Your task to perform on an android device: star an email in the gmail app Image 0: 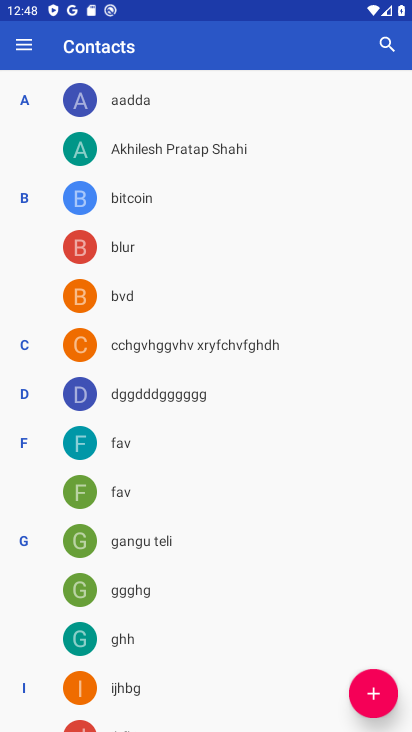
Step 0: press home button
Your task to perform on an android device: star an email in the gmail app Image 1: 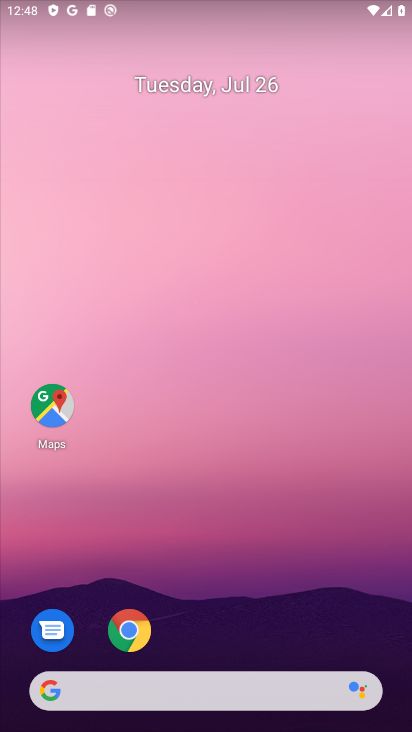
Step 1: drag from (266, 404) to (270, 34)
Your task to perform on an android device: star an email in the gmail app Image 2: 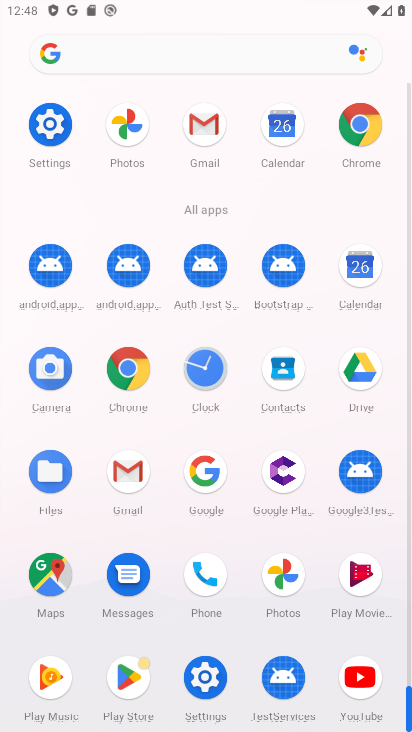
Step 2: click (208, 128)
Your task to perform on an android device: star an email in the gmail app Image 3: 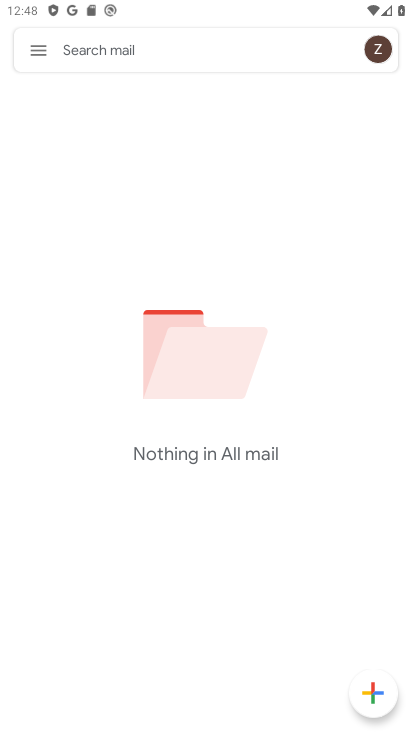
Step 3: task complete